Your task to perform on an android device: View the shopping cart on target.com. Image 0: 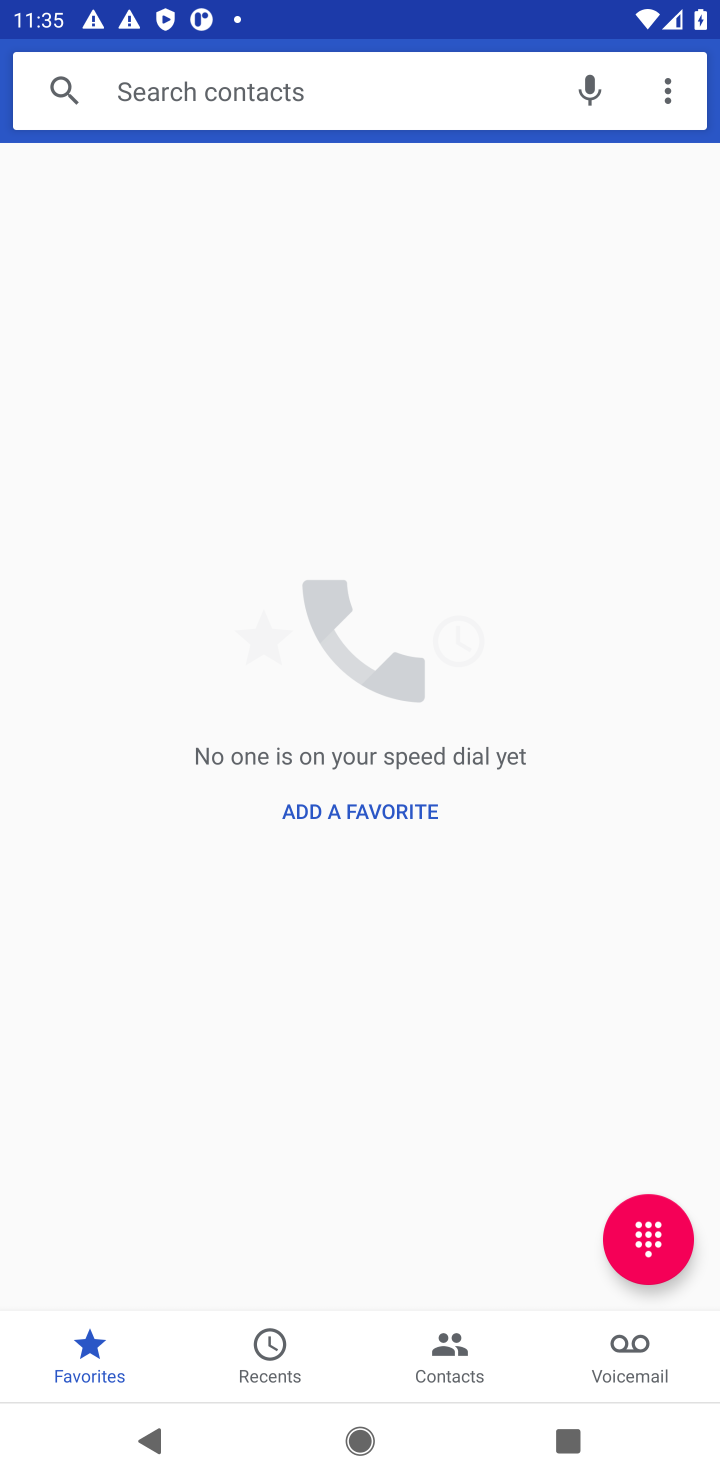
Step 0: press home button
Your task to perform on an android device: View the shopping cart on target.com. Image 1: 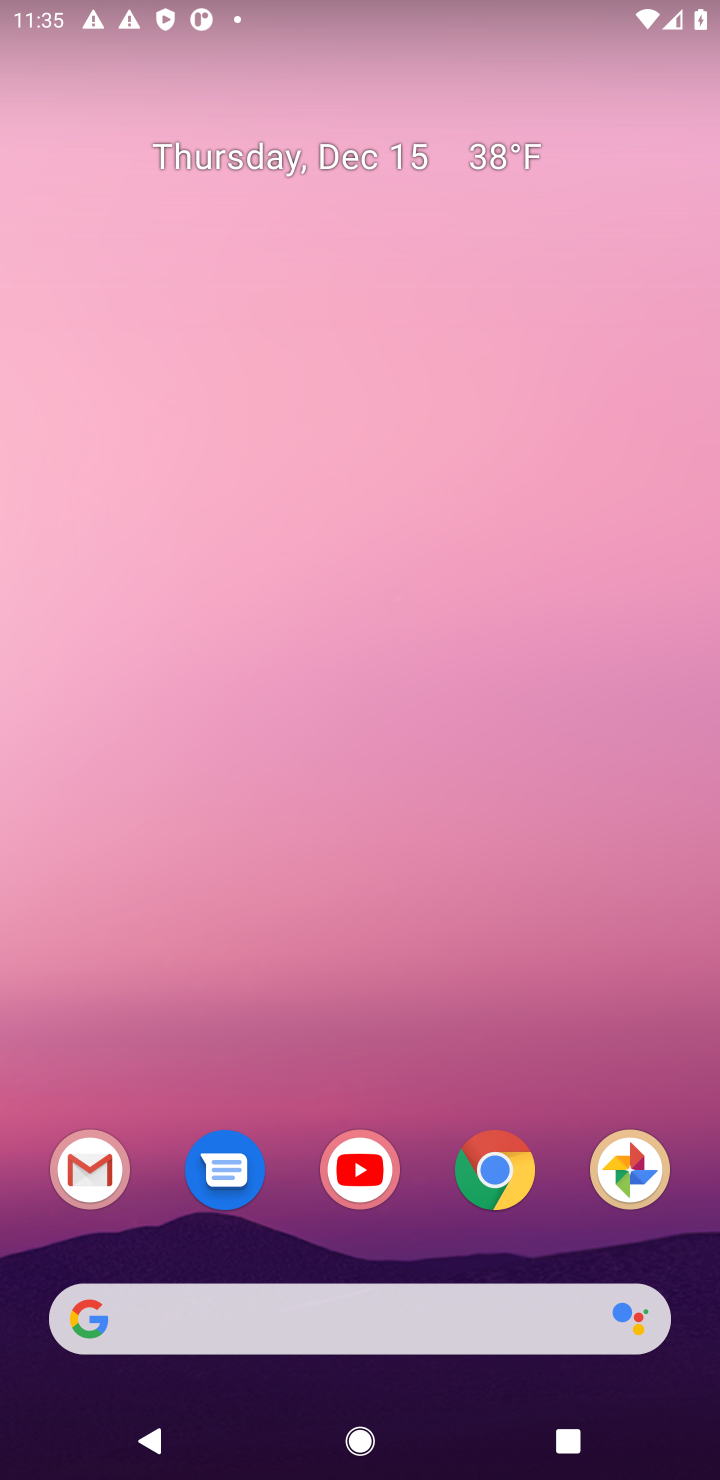
Step 1: click (499, 1184)
Your task to perform on an android device: View the shopping cart on target.com. Image 2: 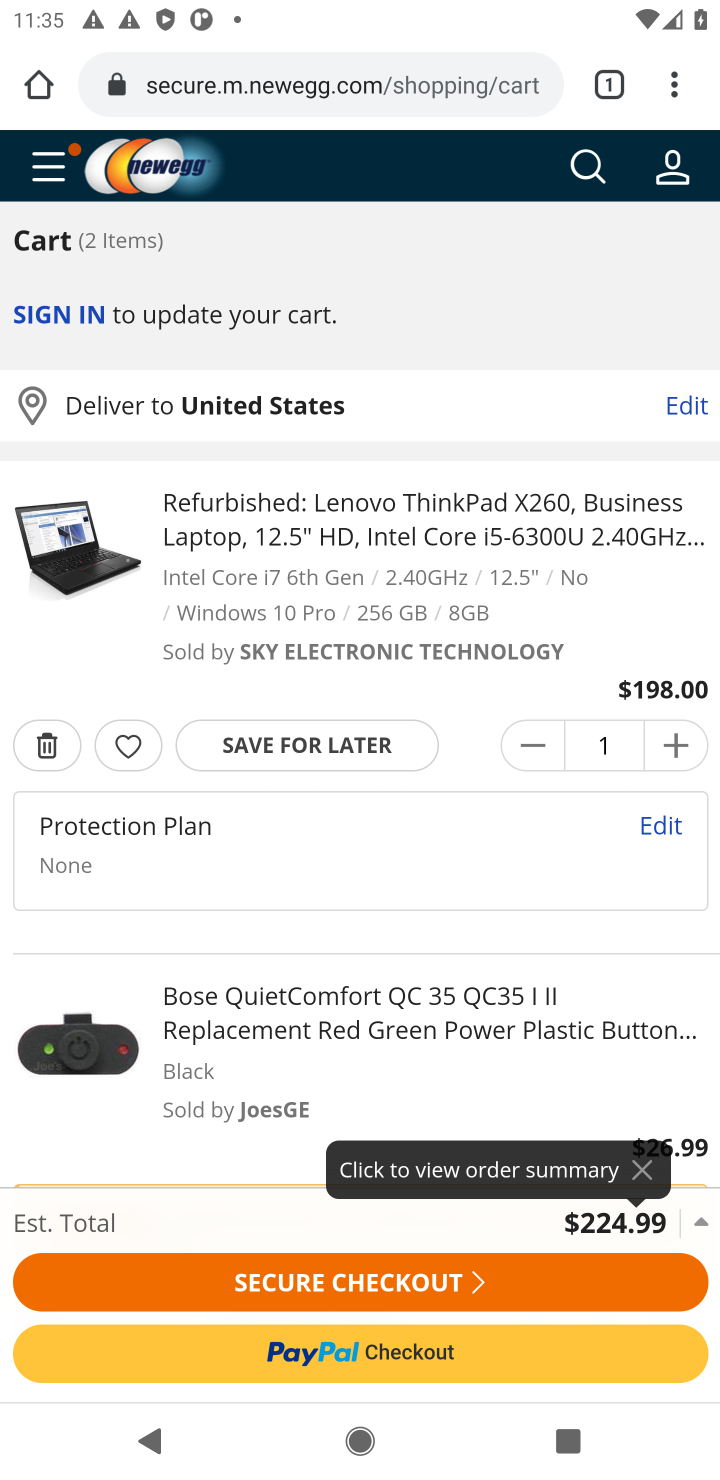
Step 2: click (256, 78)
Your task to perform on an android device: View the shopping cart on target.com. Image 3: 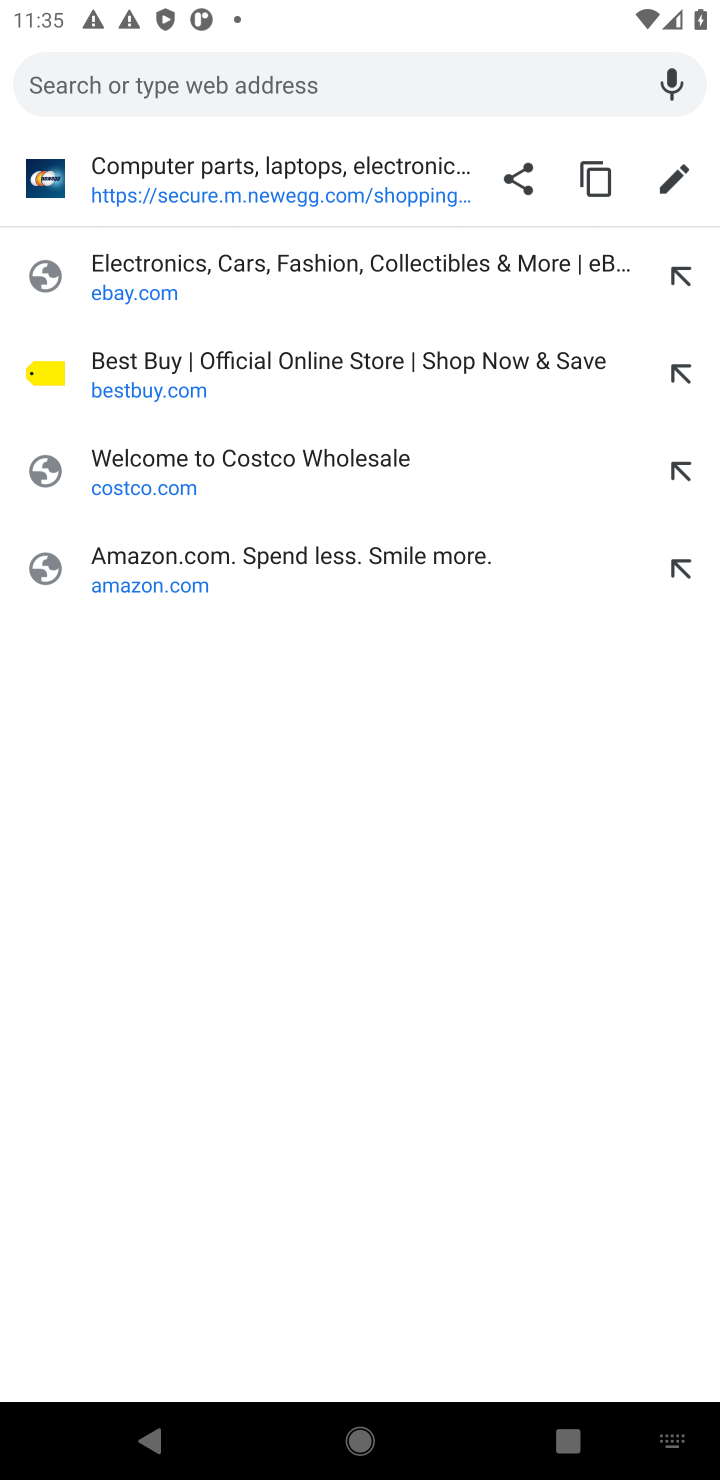
Step 3: type "target.com"
Your task to perform on an android device: View the shopping cart on target.com. Image 4: 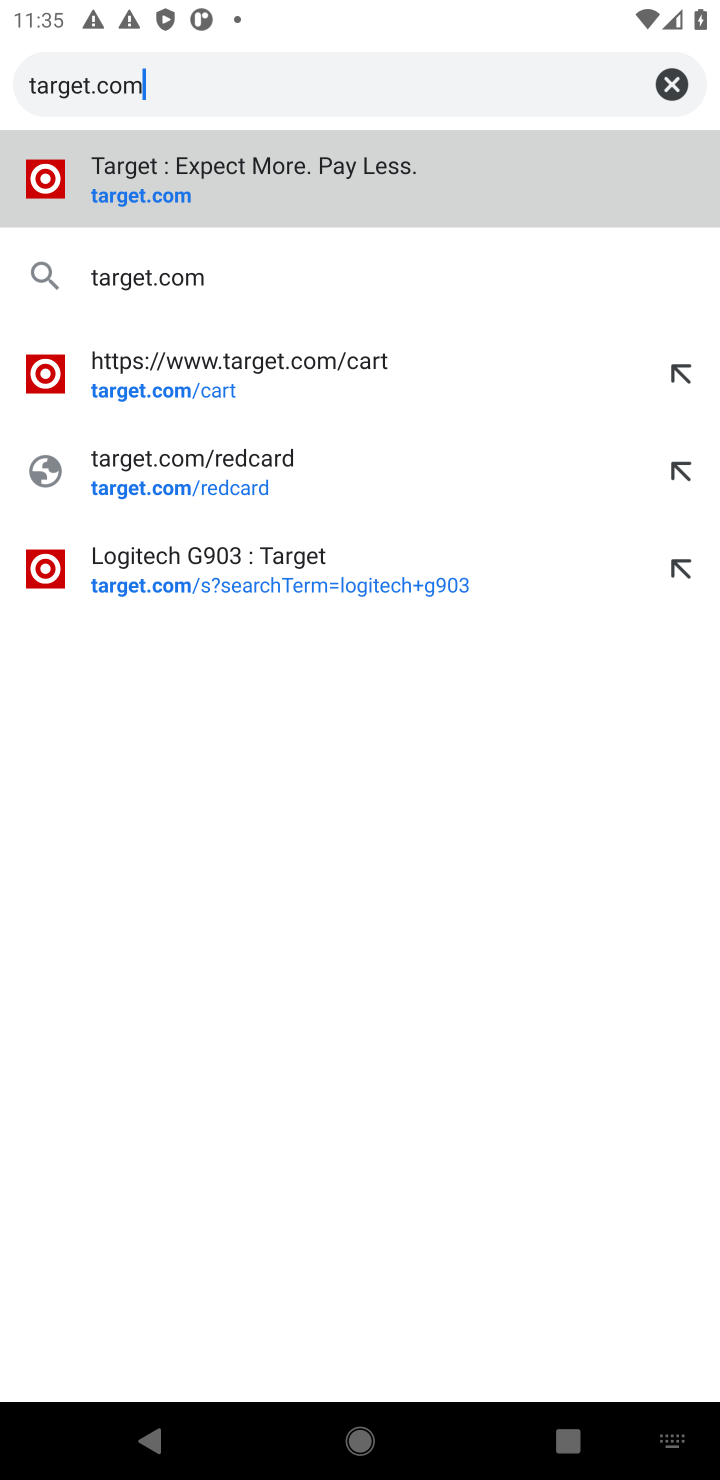
Step 4: click (149, 181)
Your task to perform on an android device: View the shopping cart on target.com. Image 5: 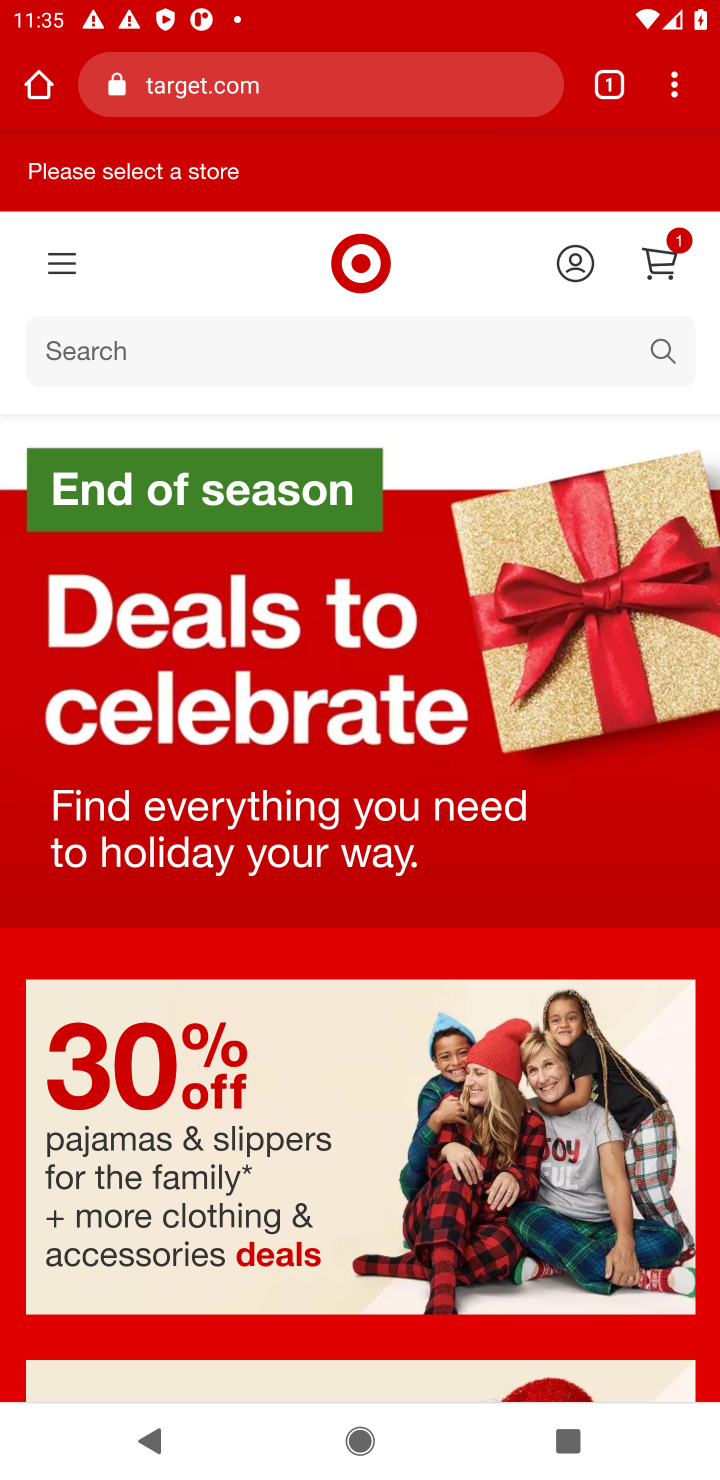
Step 5: click (663, 268)
Your task to perform on an android device: View the shopping cart on target.com. Image 6: 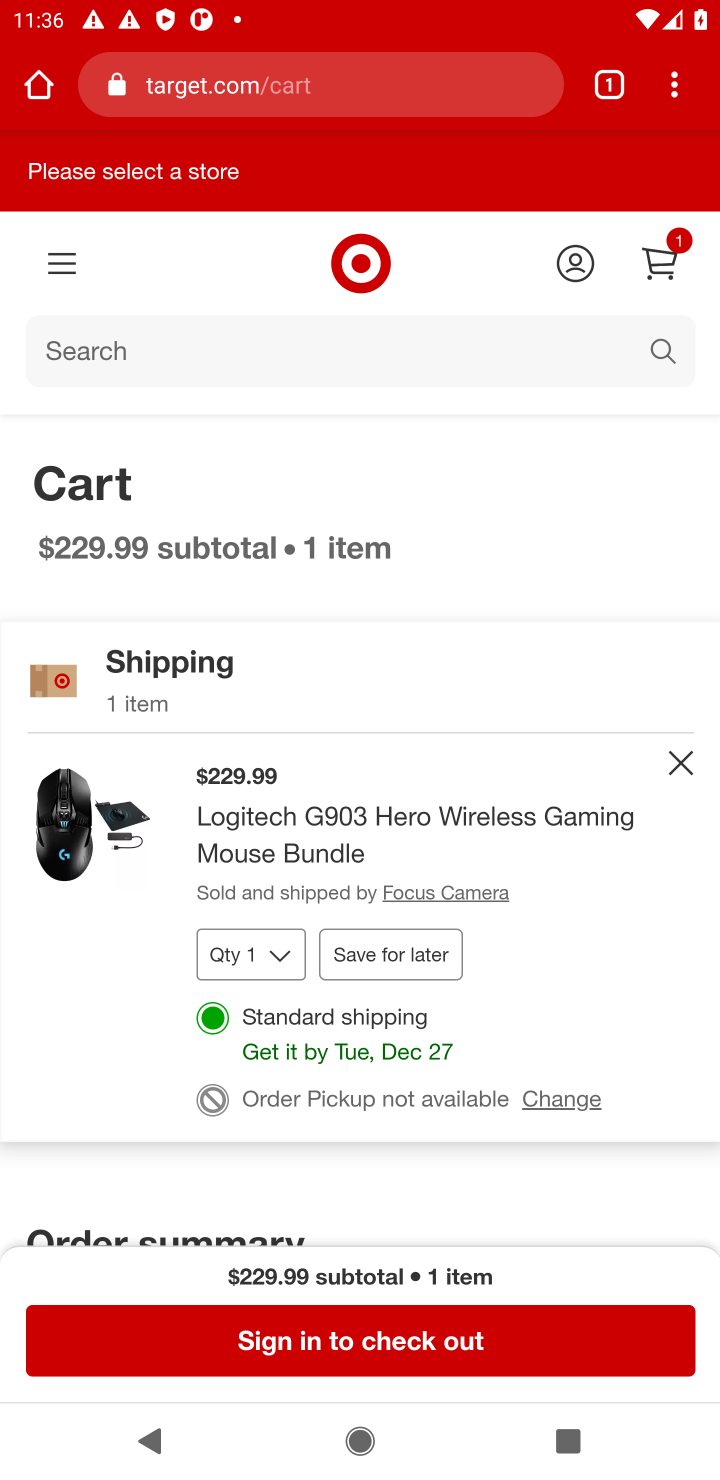
Step 6: task complete